Your task to perform on an android device: open the mobile data screen to see how much data has been used Image 0: 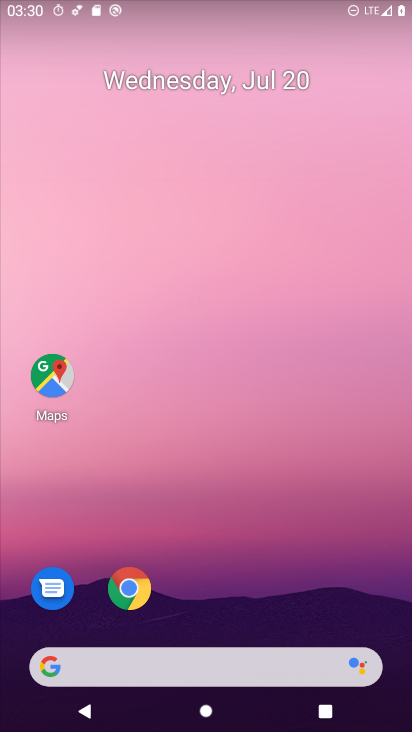
Step 0: drag from (208, 626) to (145, 92)
Your task to perform on an android device: open the mobile data screen to see how much data has been used Image 1: 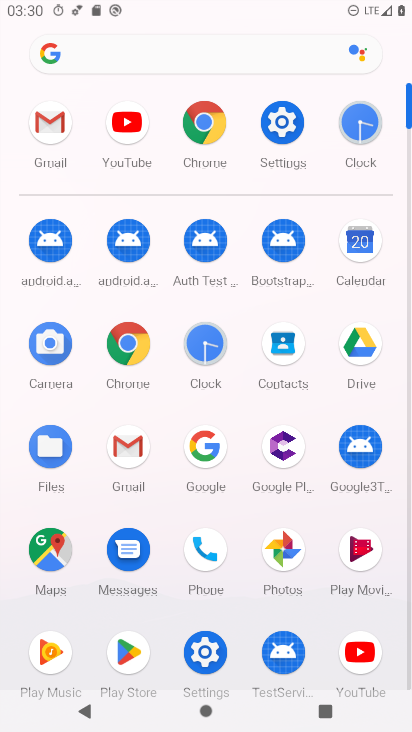
Step 1: click (214, 119)
Your task to perform on an android device: open the mobile data screen to see how much data has been used Image 2: 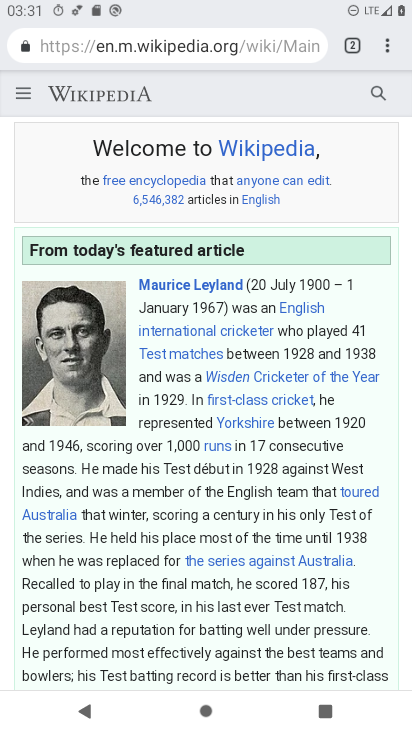
Step 2: press home button
Your task to perform on an android device: open the mobile data screen to see how much data has been used Image 3: 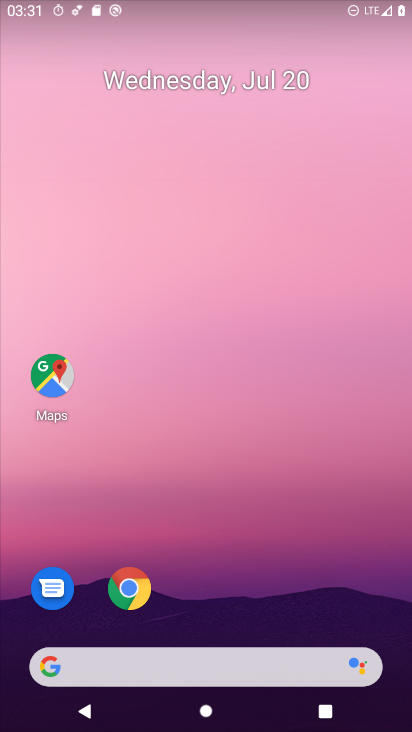
Step 3: drag from (195, 628) to (154, 1)
Your task to perform on an android device: open the mobile data screen to see how much data has been used Image 4: 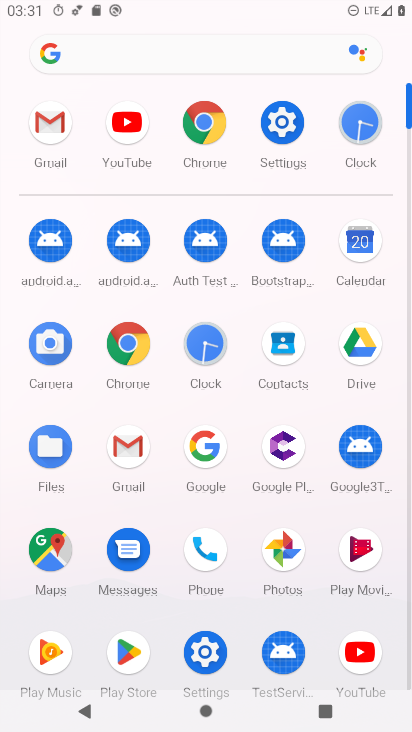
Step 4: click (270, 115)
Your task to perform on an android device: open the mobile data screen to see how much data has been used Image 5: 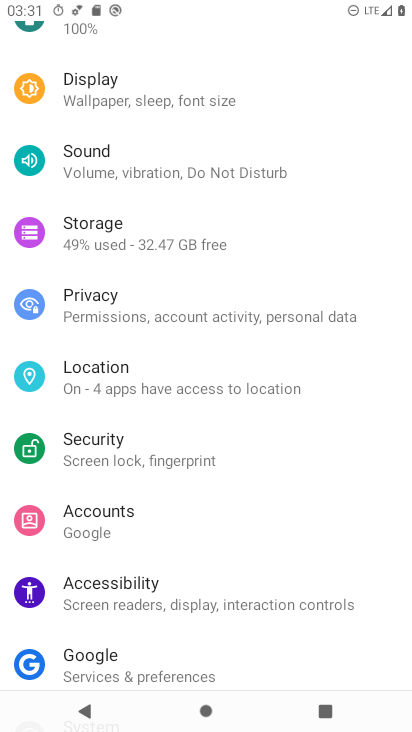
Step 5: drag from (171, 121) to (139, 443)
Your task to perform on an android device: open the mobile data screen to see how much data has been used Image 6: 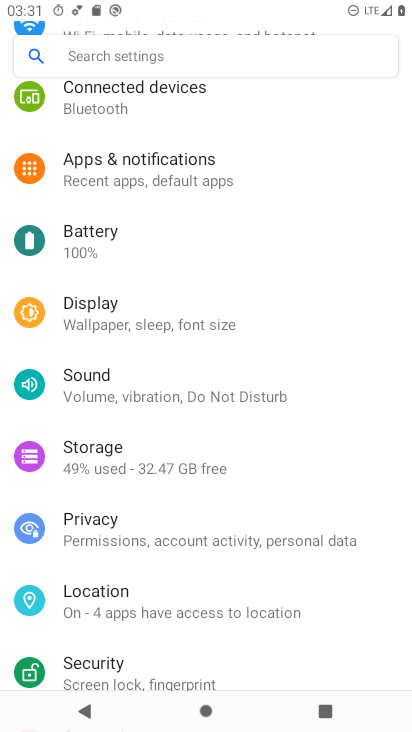
Step 6: drag from (125, 142) to (143, 435)
Your task to perform on an android device: open the mobile data screen to see how much data has been used Image 7: 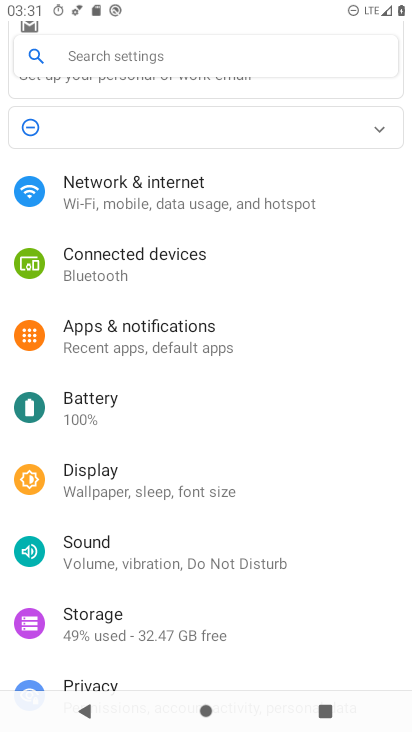
Step 7: click (124, 192)
Your task to perform on an android device: open the mobile data screen to see how much data has been used Image 8: 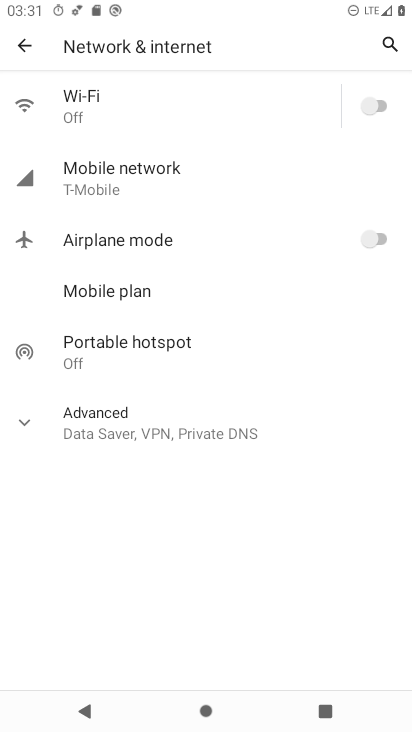
Step 8: click (124, 192)
Your task to perform on an android device: open the mobile data screen to see how much data has been used Image 9: 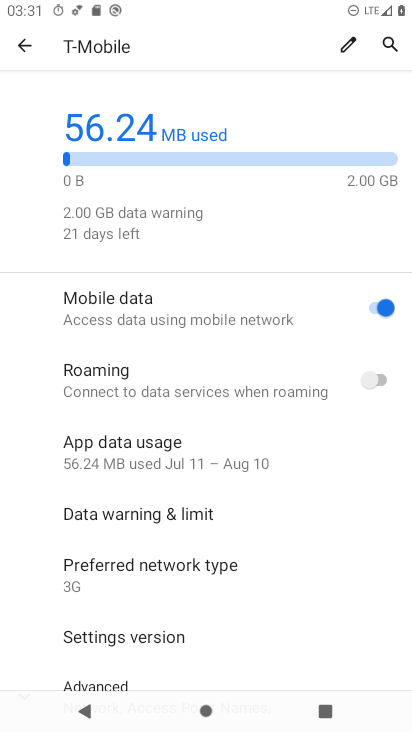
Step 9: task complete